Your task to perform on an android device: turn on the 12-hour format for clock Image 0: 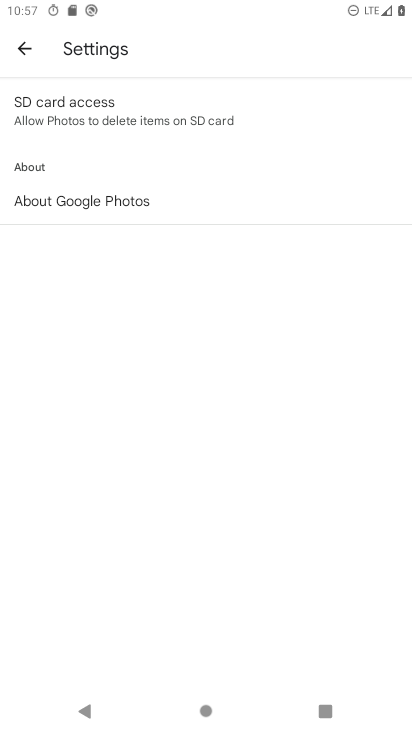
Step 0: press home button
Your task to perform on an android device: turn on the 12-hour format for clock Image 1: 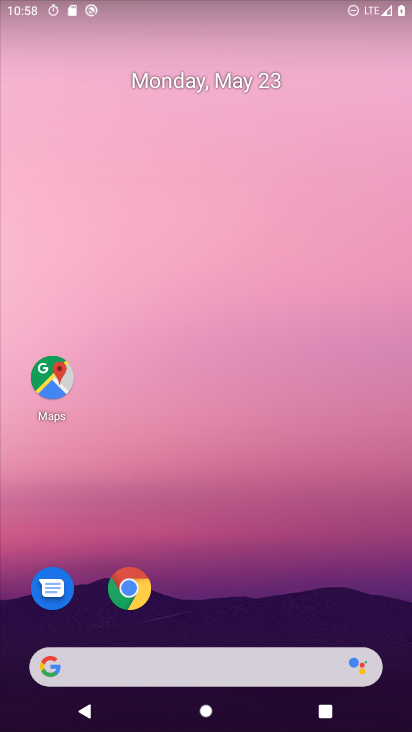
Step 1: drag from (403, 700) to (354, 205)
Your task to perform on an android device: turn on the 12-hour format for clock Image 2: 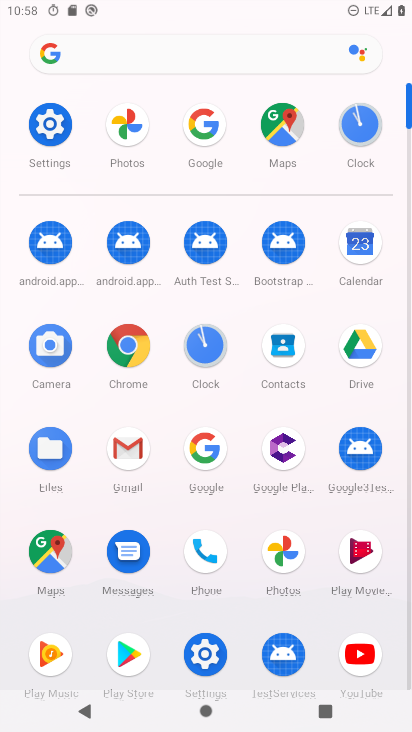
Step 2: click (364, 142)
Your task to perform on an android device: turn on the 12-hour format for clock Image 3: 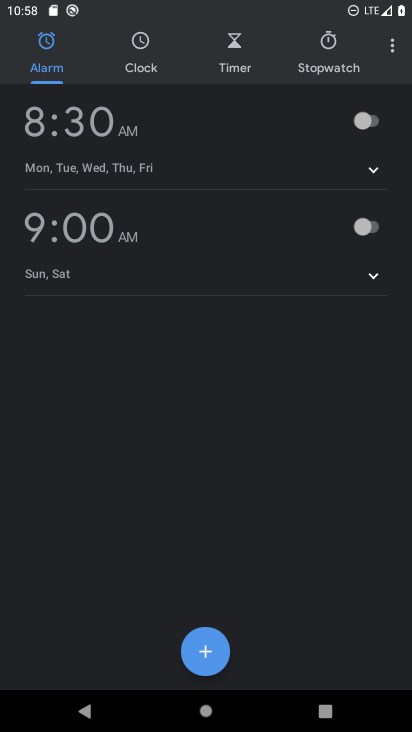
Step 3: click (393, 47)
Your task to perform on an android device: turn on the 12-hour format for clock Image 4: 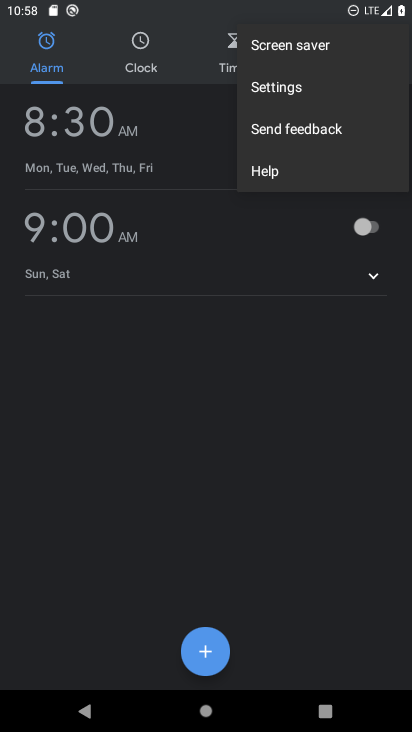
Step 4: click (271, 87)
Your task to perform on an android device: turn on the 12-hour format for clock Image 5: 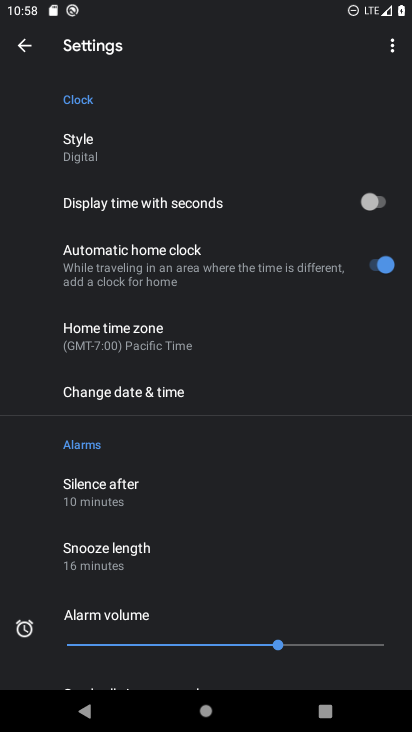
Step 5: click (143, 386)
Your task to perform on an android device: turn on the 12-hour format for clock Image 6: 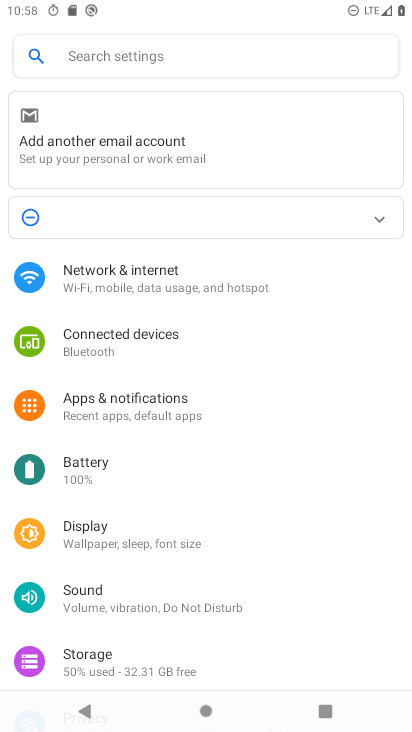
Step 6: task complete